Your task to perform on an android device: check out phone information Image 0: 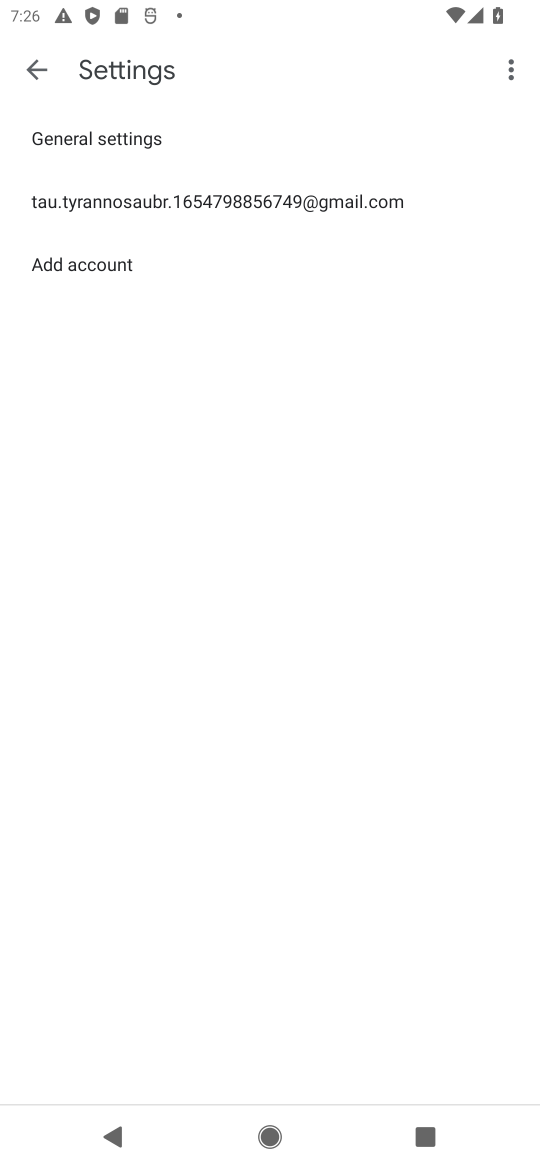
Step 0: press home button
Your task to perform on an android device: check out phone information Image 1: 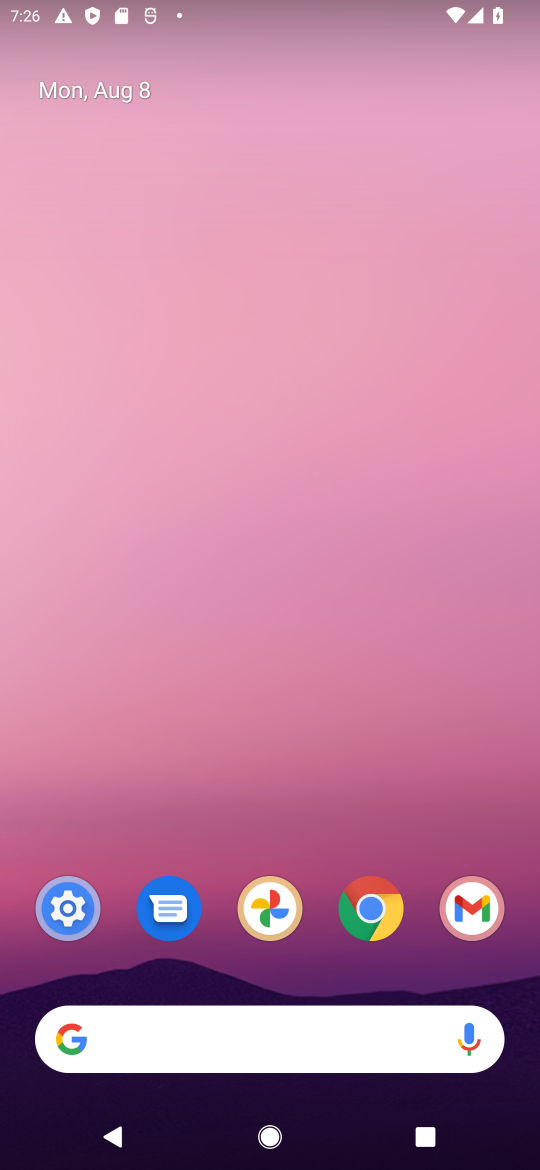
Step 1: click (66, 881)
Your task to perform on an android device: check out phone information Image 2: 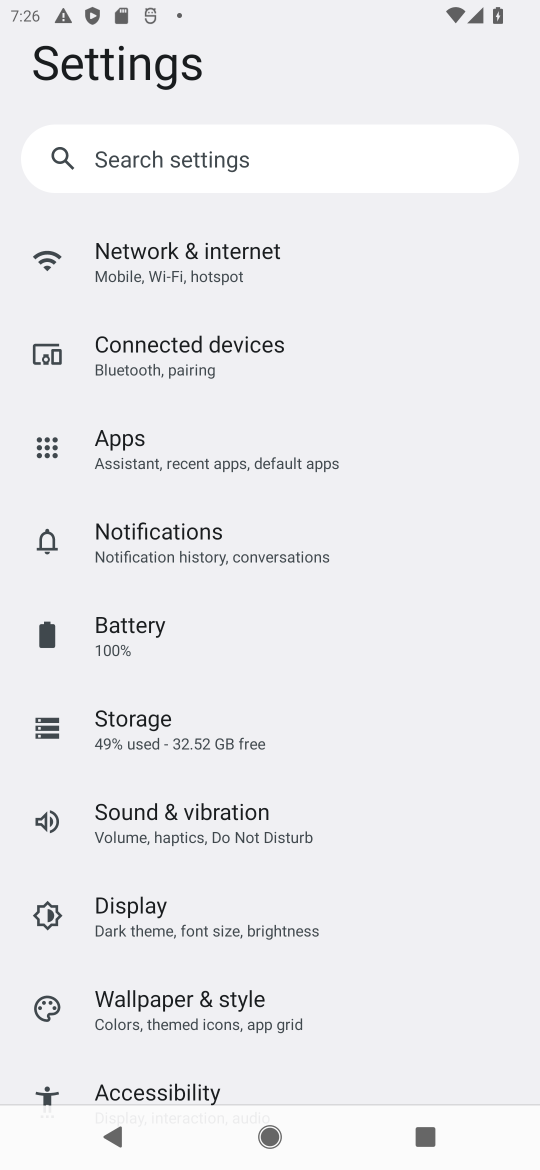
Step 2: drag from (66, 881) to (220, 235)
Your task to perform on an android device: check out phone information Image 3: 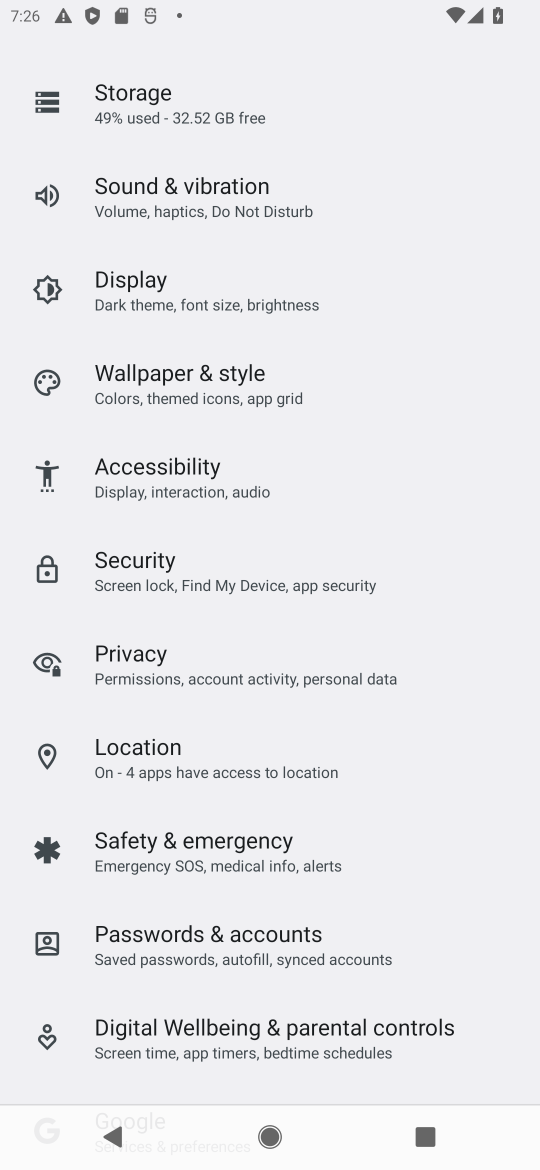
Step 3: drag from (127, 841) to (319, 134)
Your task to perform on an android device: check out phone information Image 4: 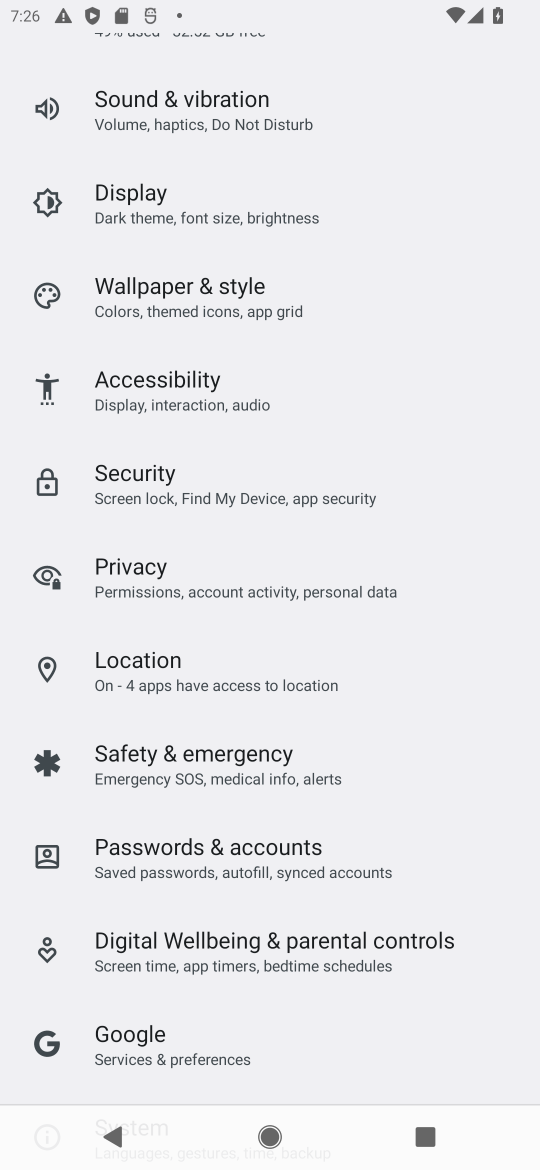
Step 4: drag from (334, 967) to (380, 600)
Your task to perform on an android device: check out phone information Image 5: 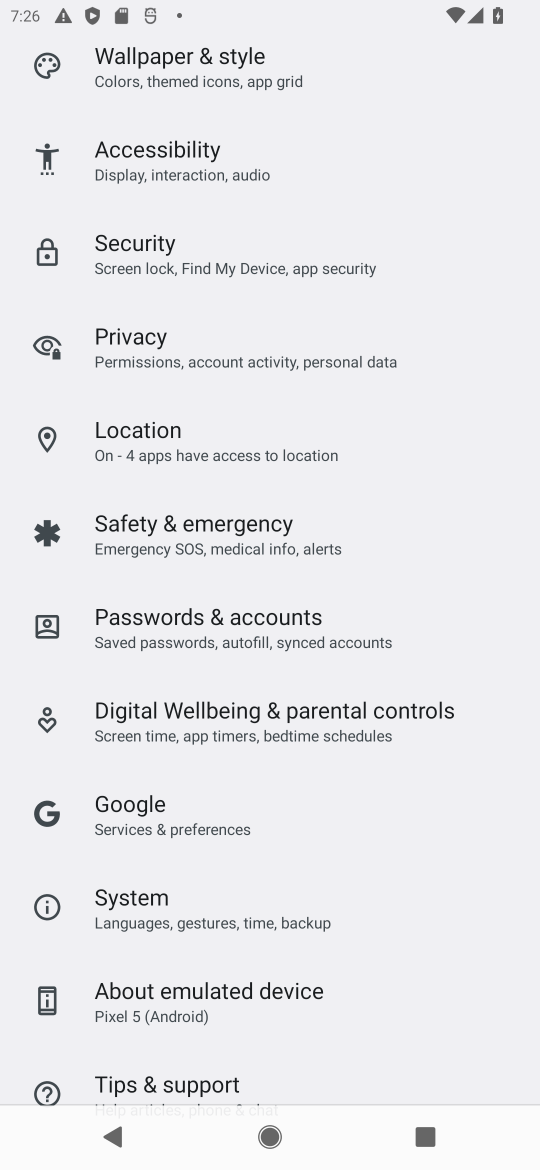
Step 5: drag from (192, 863) to (253, 363)
Your task to perform on an android device: check out phone information Image 6: 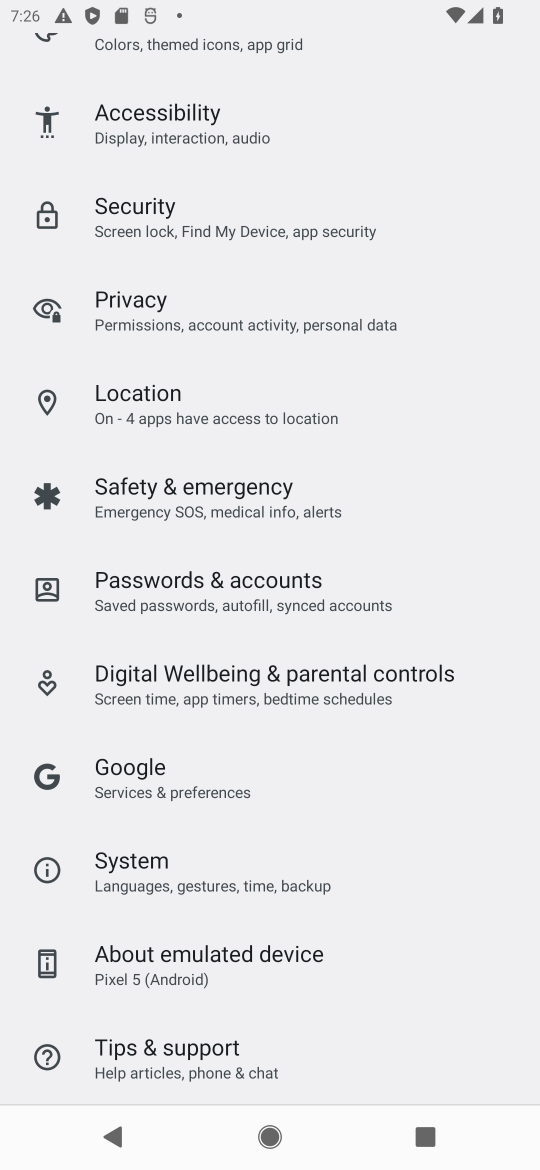
Step 6: drag from (194, 1017) to (399, 326)
Your task to perform on an android device: check out phone information Image 7: 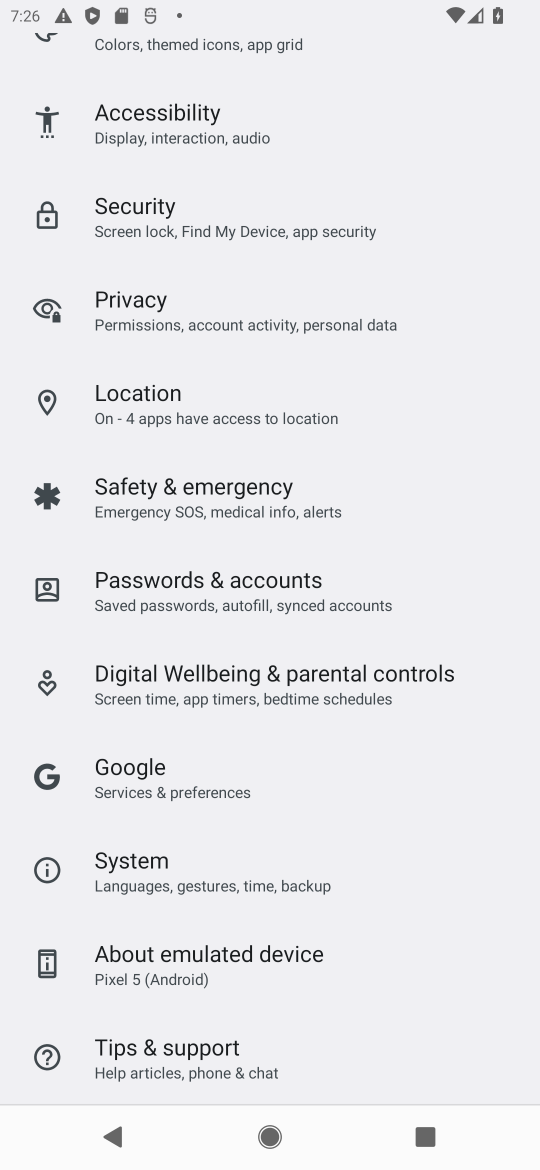
Step 7: click (226, 1085)
Your task to perform on an android device: check out phone information Image 8: 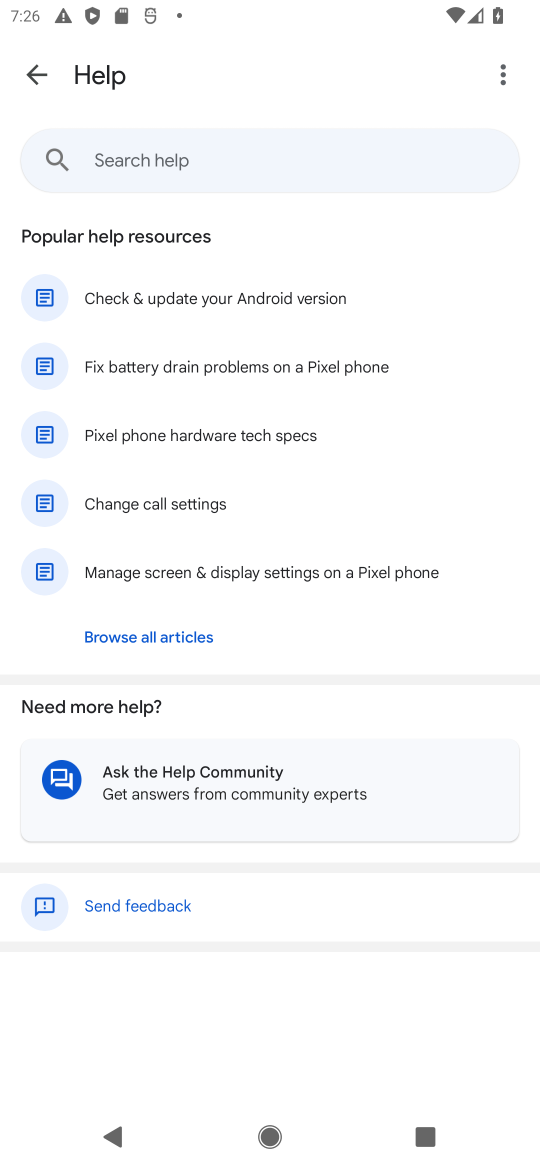
Step 8: click (41, 83)
Your task to perform on an android device: check out phone information Image 9: 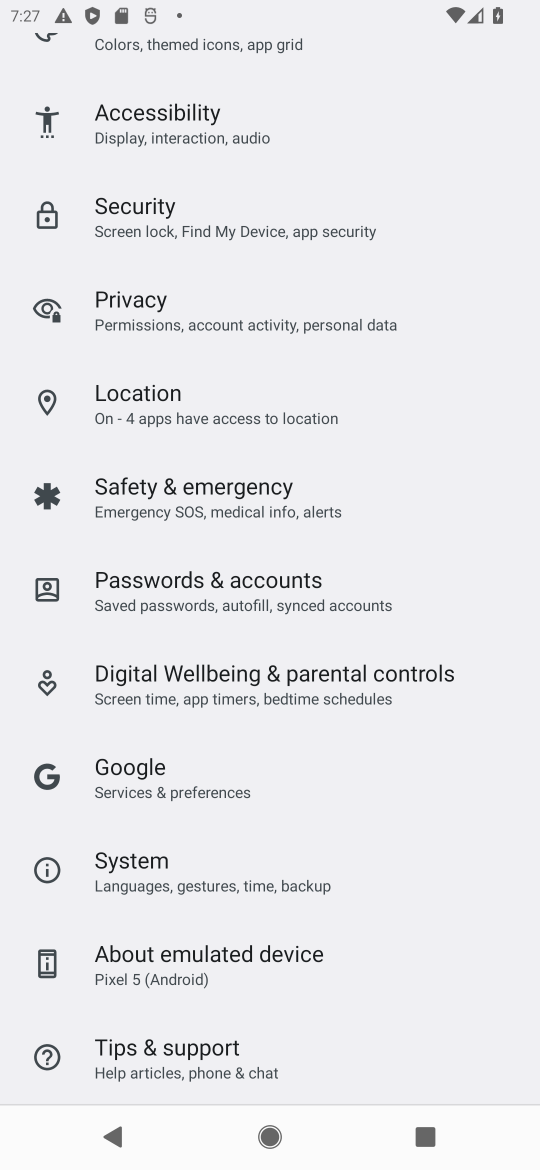
Step 9: click (198, 977)
Your task to perform on an android device: check out phone information Image 10: 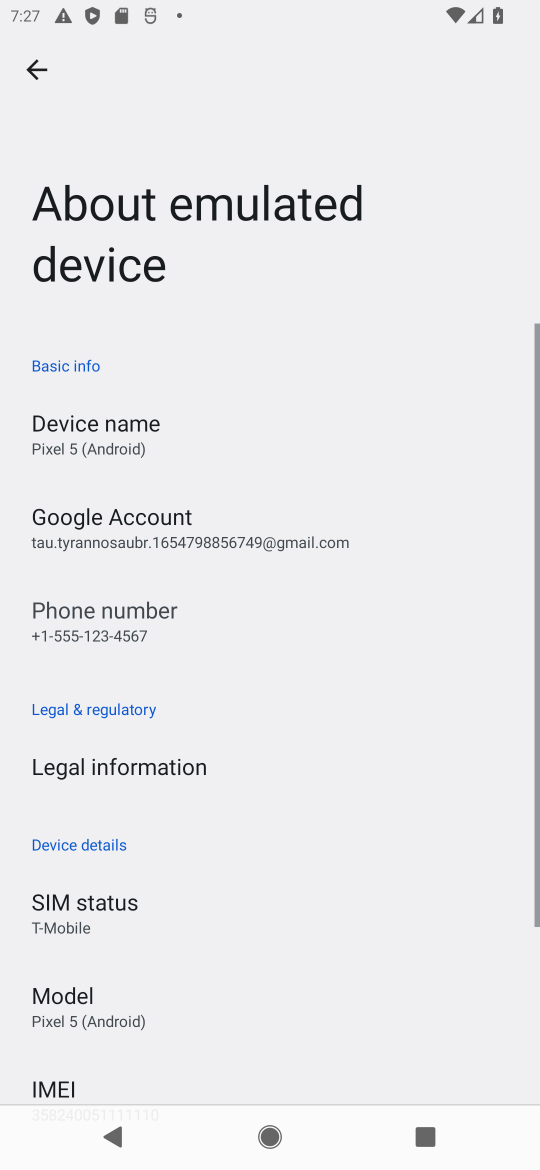
Step 10: task complete